Your task to perform on an android device: Go to Maps Image 0: 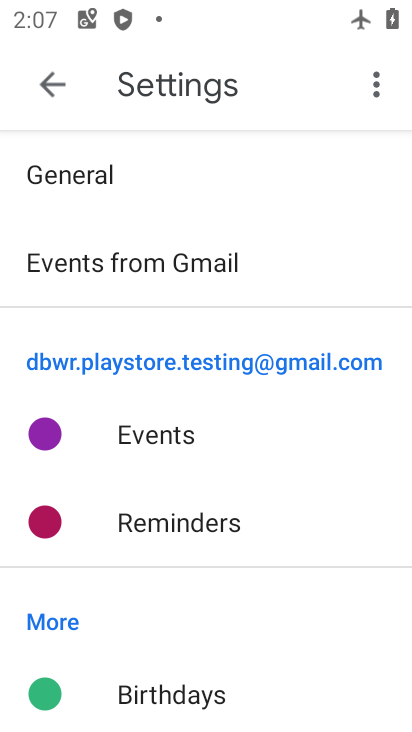
Step 0: press home button
Your task to perform on an android device: Go to Maps Image 1: 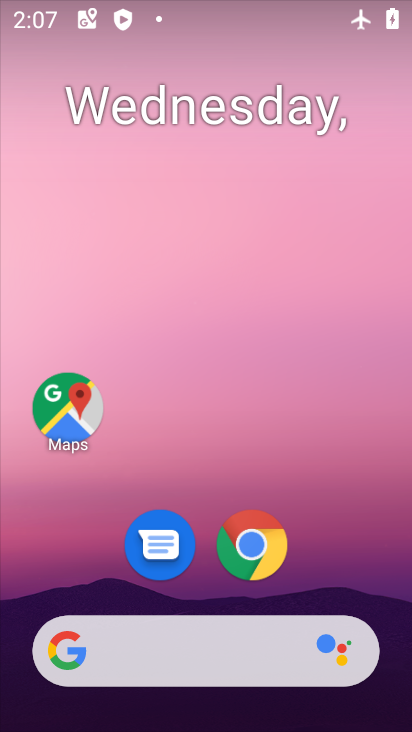
Step 1: click (58, 405)
Your task to perform on an android device: Go to Maps Image 2: 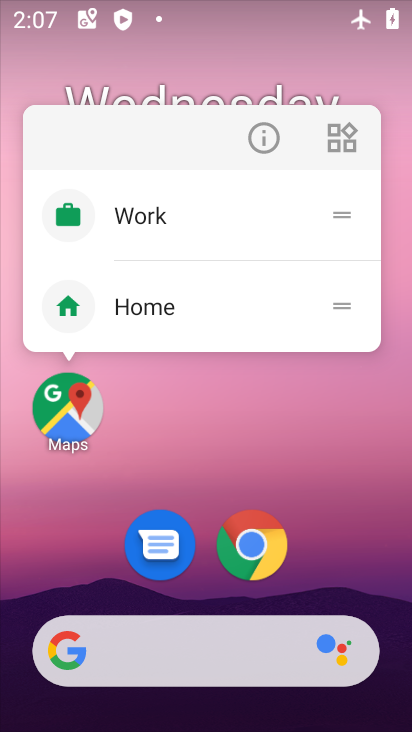
Step 2: click (53, 419)
Your task to perform on an android device: Go to Maps Image 3: 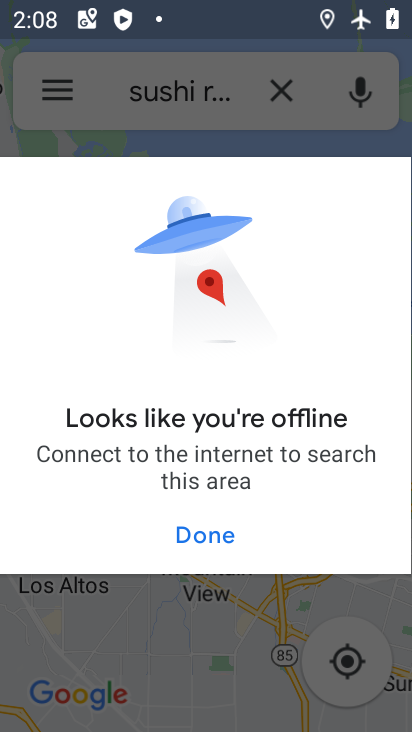
Step 3: task complete